Your task to perform on an android device: turn off priority inbox in the gmail app Image 0: 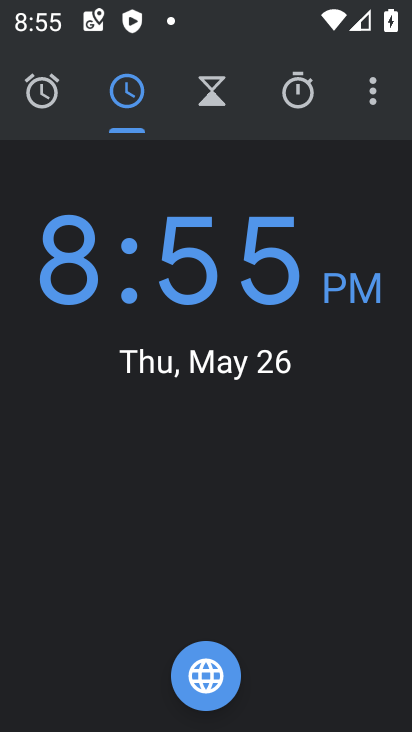
Step 0: press home button
Your task to perform on an android device: turn off priority inbox in the gmail app Image 1: 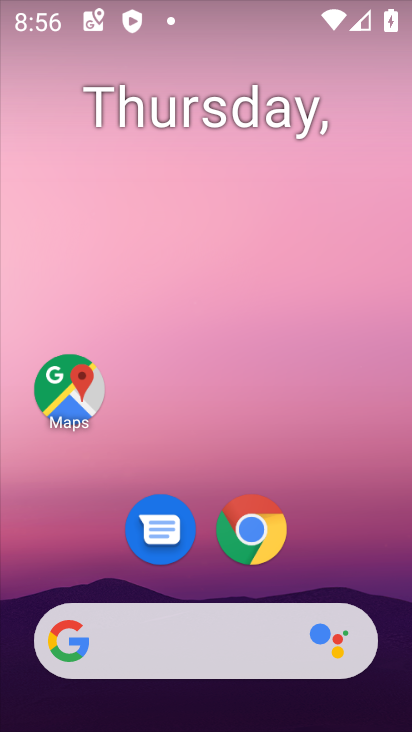
Step 1: drag from (204, 729) to (182, 180)
Your task to perform on an android device: turn off priority inbox in the gmail app Image 2: 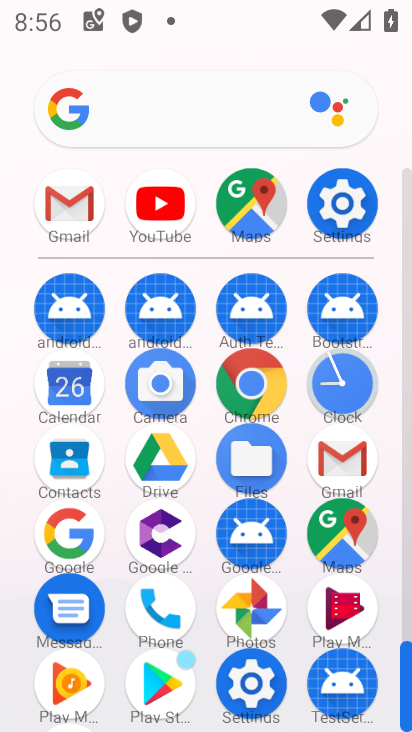
Step 2: click (338, 455)
Your task to perform on an android device: turn off priority inbox in the gmail app Image 3: 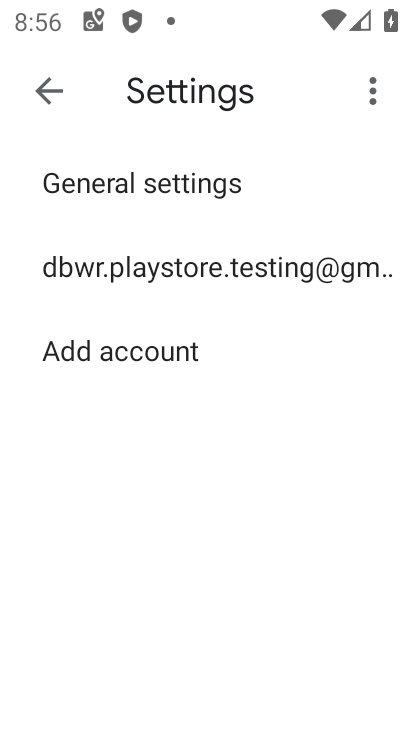
Step 3: click (179, 268)
Your task to perform on an android device: turn off priority inbox in the gmail app Image 4: 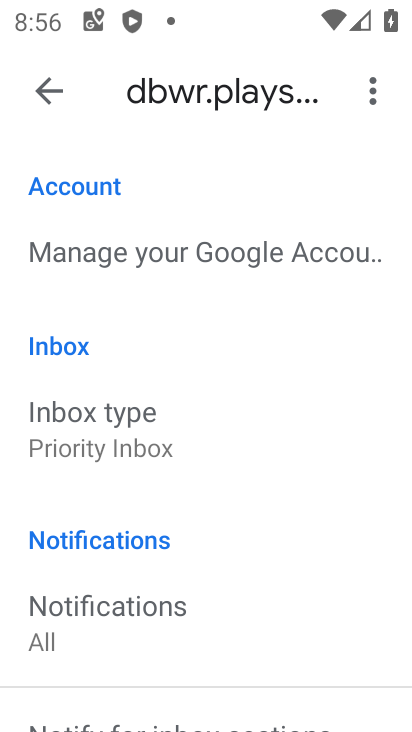
Step 4: click (76, 429)
Your task to perform on an android device: turn off priority inbox in the gmail app Image 5: 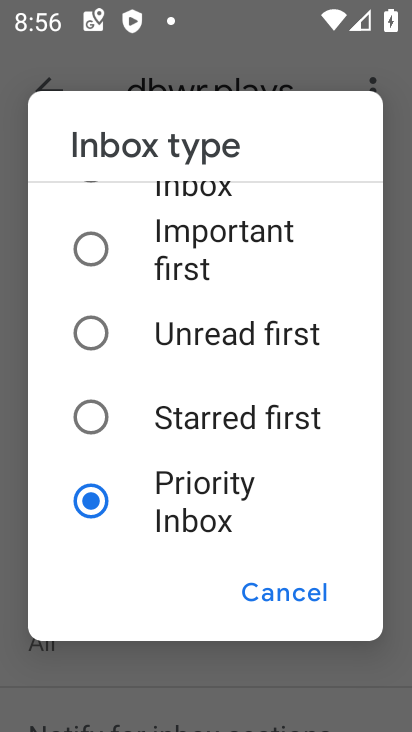
Step 5: click (89, 181)
Your task to perform on an android device: turn off priority inbox in the gmail app Image 6: 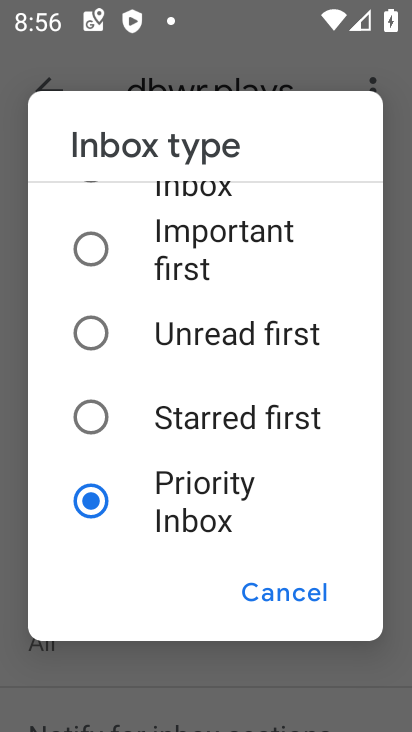
Step 6: click (89, 250)
Your task to perform on an android device: turn off priority inbox in the gmail app Image 7: 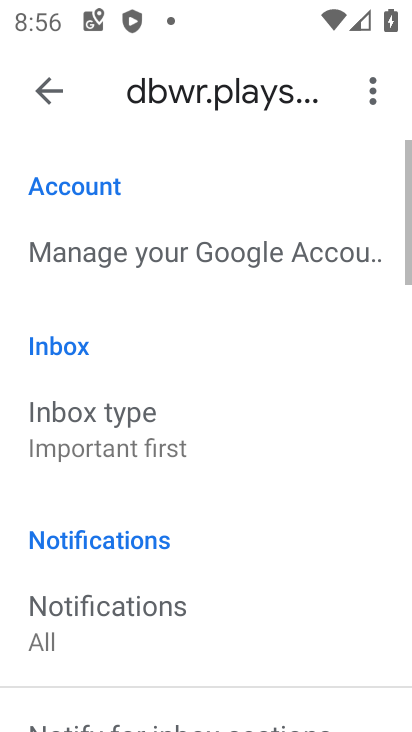
Step 7: task complete